Your task to perform on an android device: Open Google Chrome and open the bookmarks view Image 0: 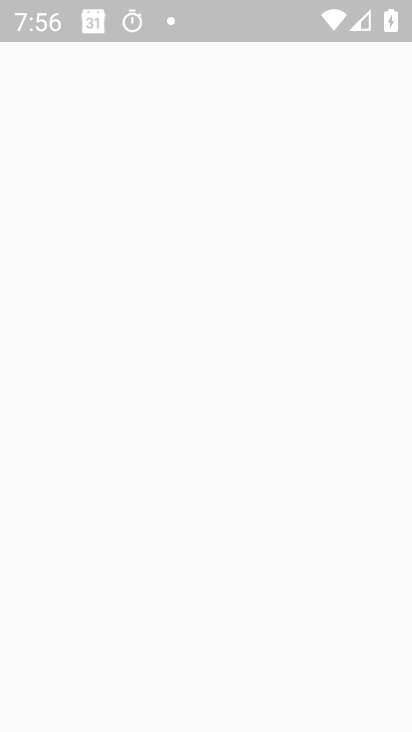
Step 0: press home button
Your task to perform on an android device: Open Google Chrome and open the bookmarks view Image 1: 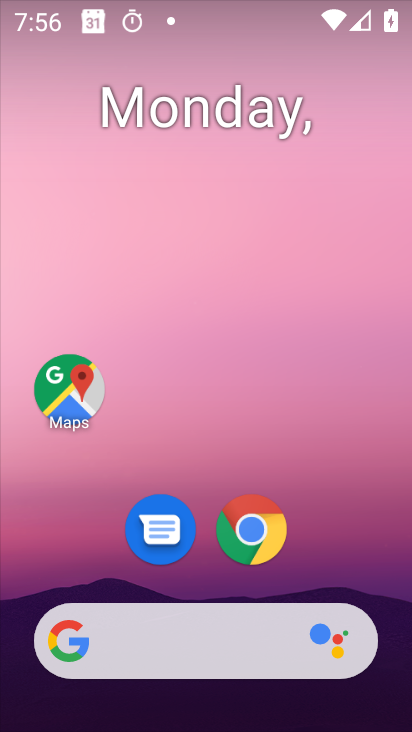
Step 1: click (247, 529)
Your task to perform on an android device: Open Google Chrome and open the bookmarks view Image 2: 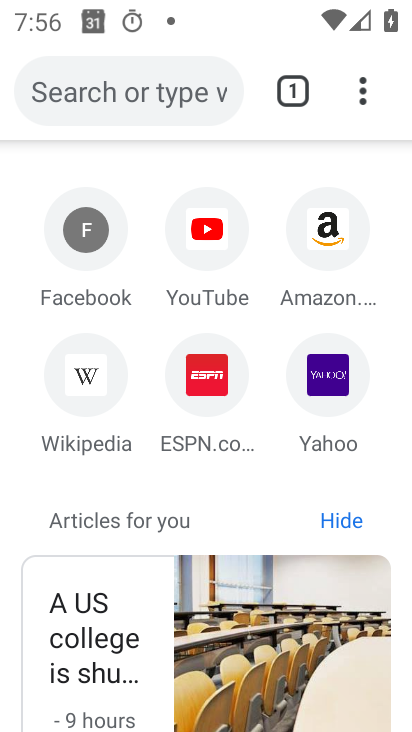
Step 2: click (360, 90)
Your task to perform on an android device: Open Google Chrome and open the bookmarks view Image 3: 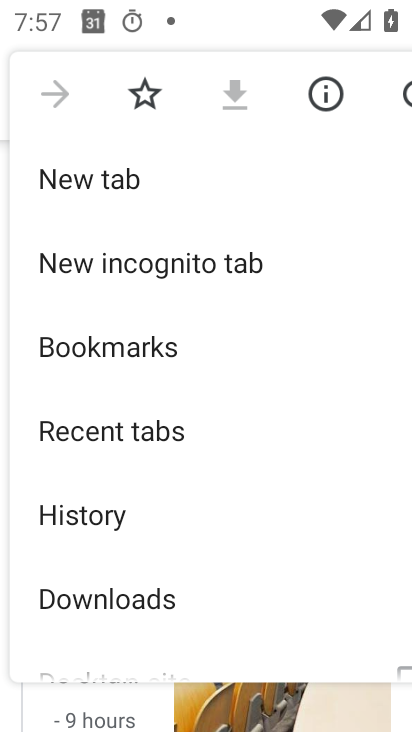
Step 3: click (225, 339)
Your task to perform on an android device: Open Google Chrome and open the bookmarks view Image 4: 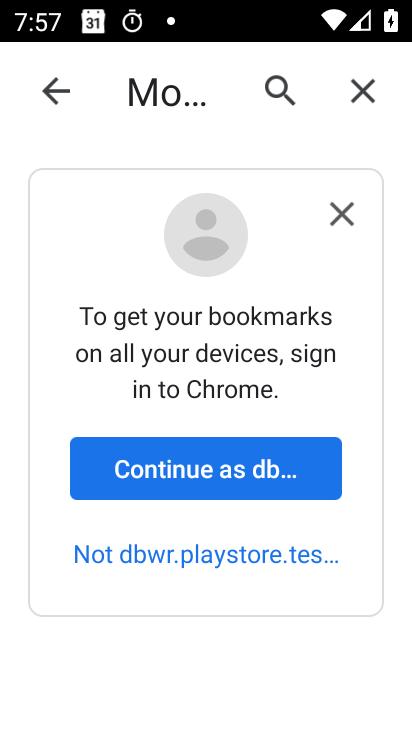
Step 4: click (349, 215)
Your task to perform on an android device: Open Google Chrome and open the bookmarks view Image 5: 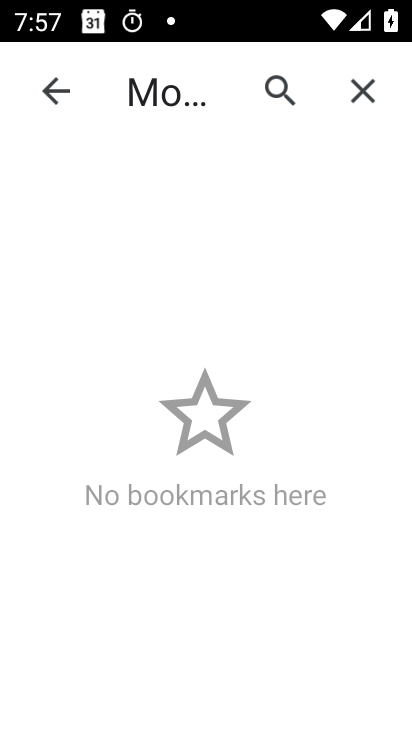
Step 5: task complete